Your task to perform on an android device: Go to display settings Image 0: 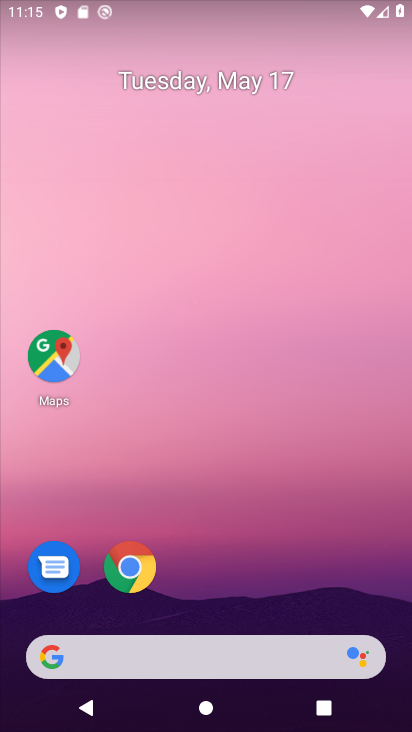
Step 0: drag from (323, 479) to (352, 193)
Your task to perform on an android device: Go to display settings Image 1: 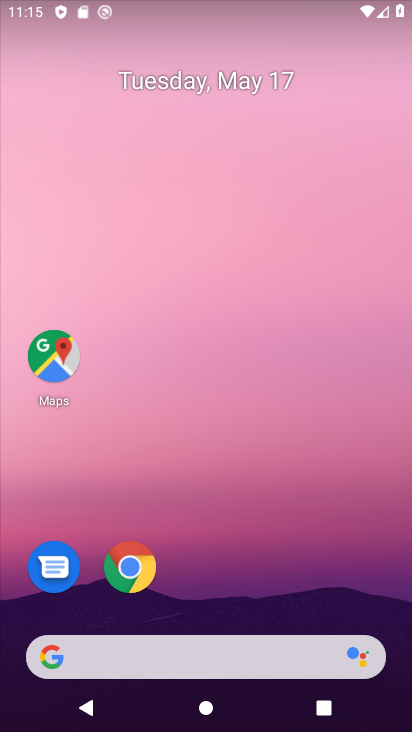
Step 1: drag from (324, 610) to (364, 191)
Your task to perform on an android device: Go to display settings Image 2: 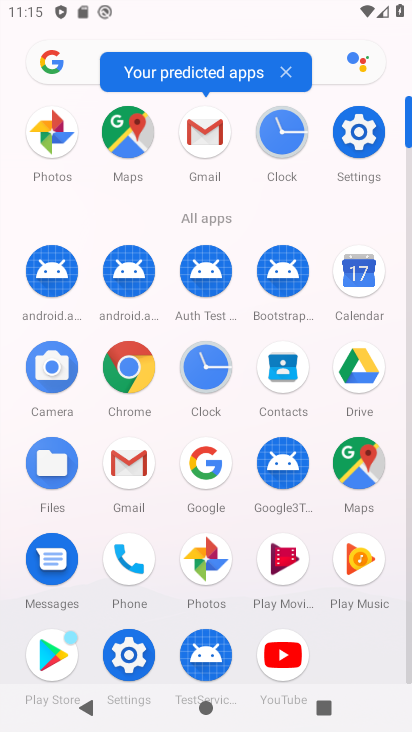
Step 2: click (153, 658)
Your task to perform on an android device: Go to display settings Image 3: 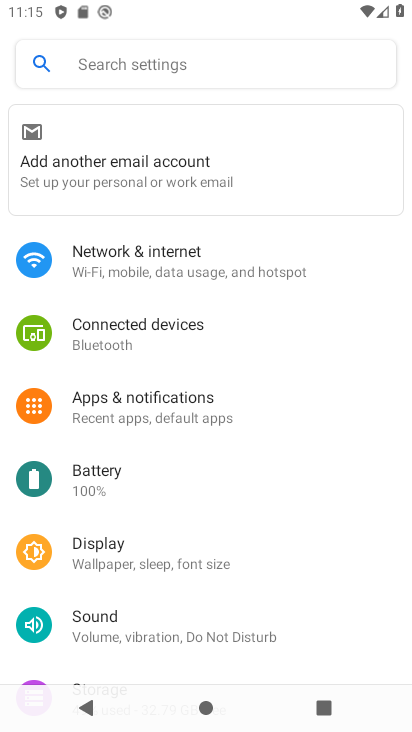
Step 3: click (146, 565)
Your task to perform on an android device: Go to display settings Image 4: 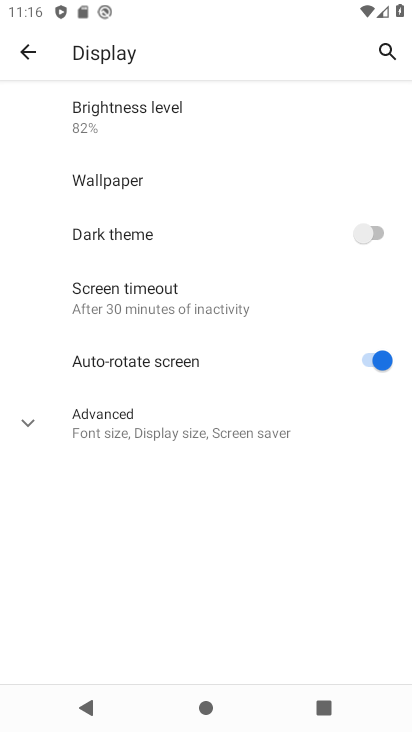
Step 4: task complete